Your task to perform on an android device: check storage Image 0: 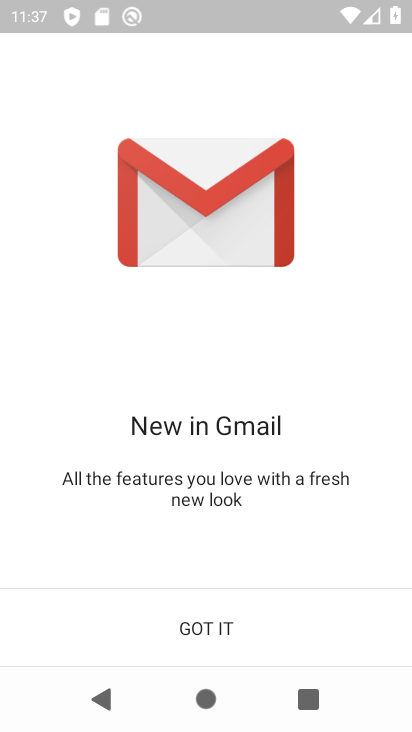
Step 0: press home button
Your task to perform on an android device: check storage Image 1: 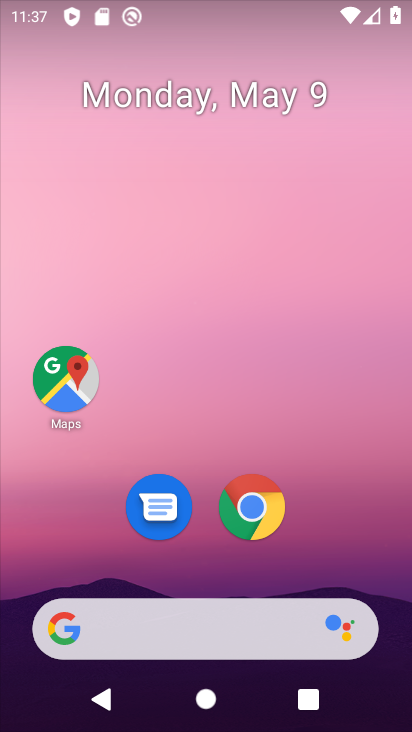
Step 1: drag from (351, 508) to (336, 87)
Your task to perform on an android device: check storage Image 2: 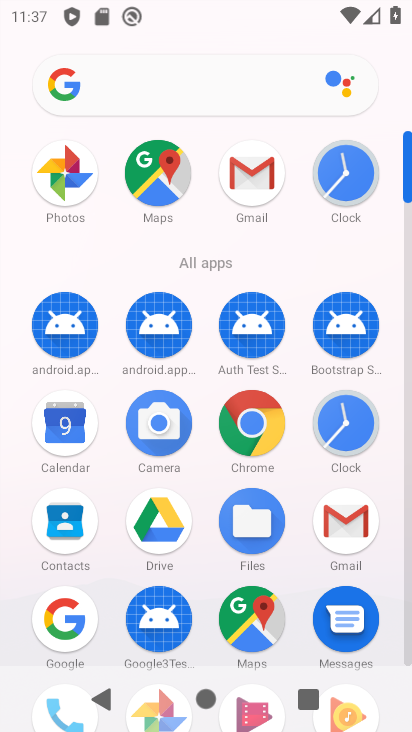
Step 2: drag from (209, 506) to (216, 128)
Your task to perform on an android device: check storage Image 3: 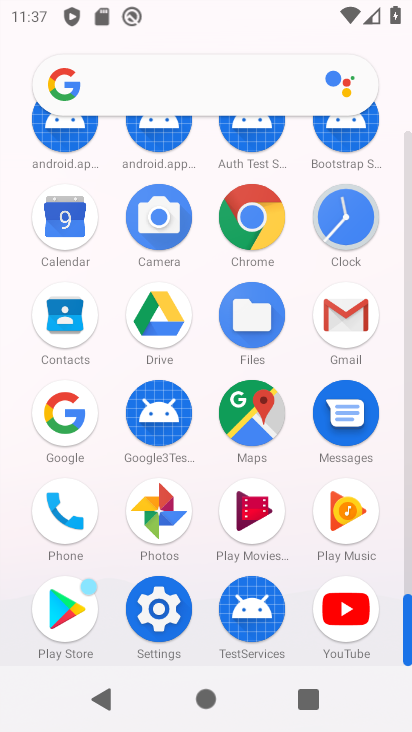
Step 3: click (157, 613)
Your task to perform on an android device: check storage Image 4: 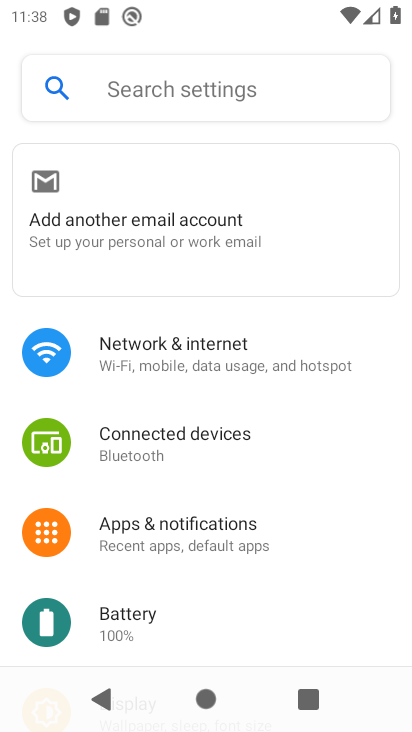
Step 4: drag from (199, 605) to (189, 390)
Your task to perform on an android device: check storage Image 5: 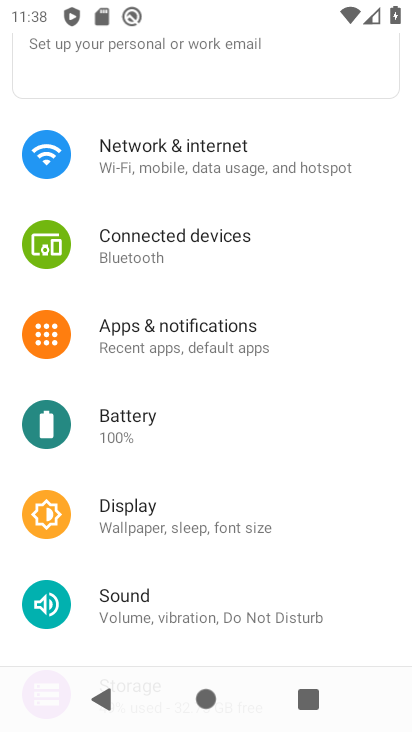
Step 5: drag from (183, 574) to (165, 413)
Your task to perform on an android device: check storage Image 6: 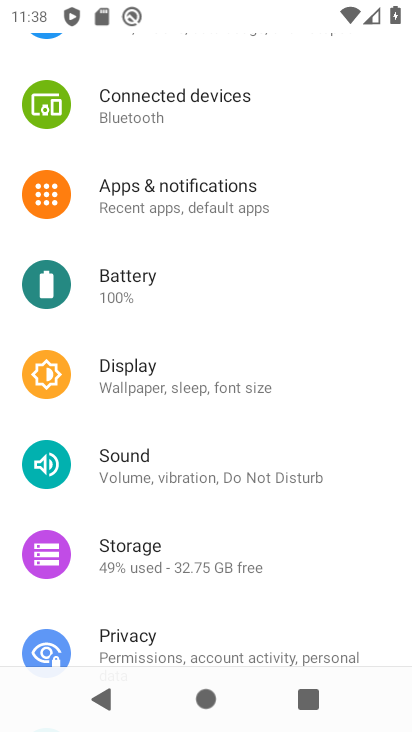
Step 6: click (156, 546)
Your task to perform on an android device: check storage Image 7: 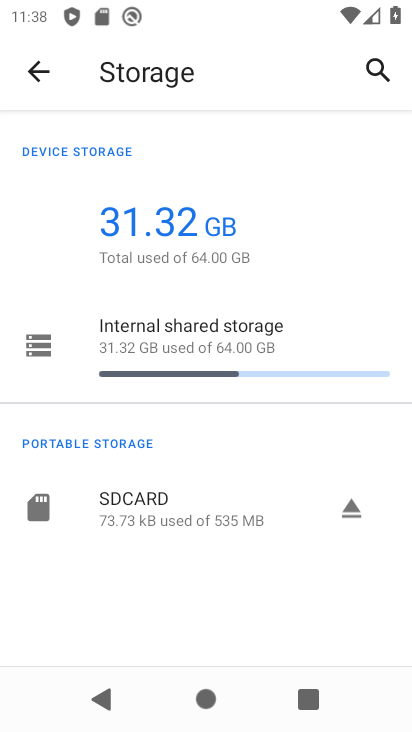
Step 7: task complete